Your task to perform on an android device: Open the calendar and show me this week's events Image 0: 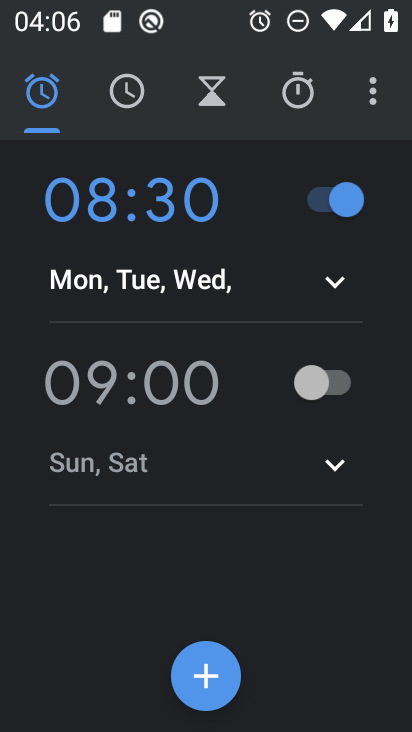
Step 0: press home button
Your task to perform on an android device: Open the calendar and show me this week's events Image 1: 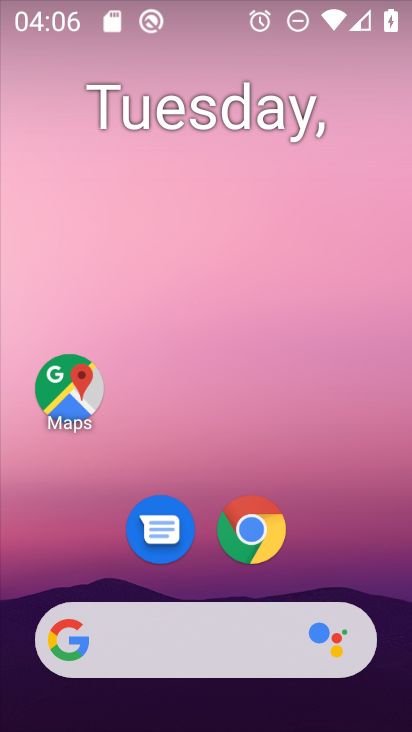
Step 1: drag from (327, 556) to (314, 118)
Your task to perform on an android device: Open the calendar and show me this week's events Image 2: 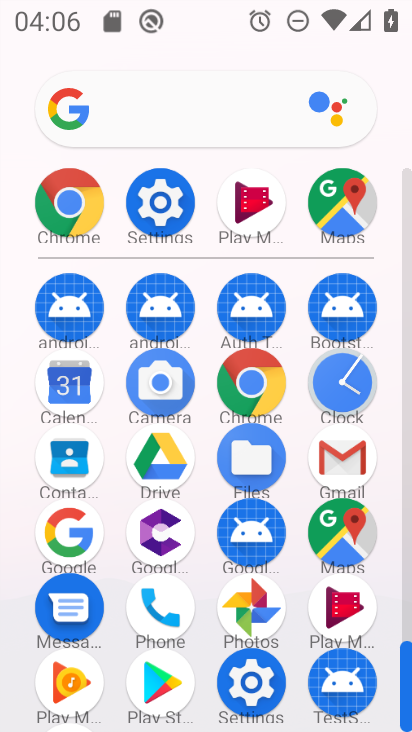
Step 2: click (72, 372)
Your task to perform on an android device: Open the calendar and show me this week's events Image 3: 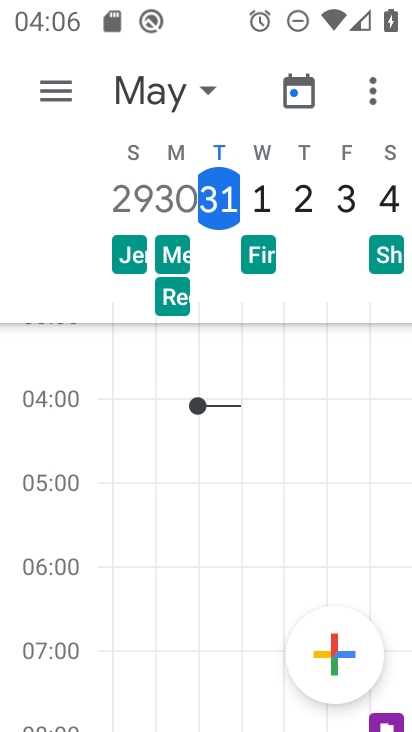
Step 3: click (55, 84)
Your task to perform on an android device: Open the calendar and show me this week's events Image 4: 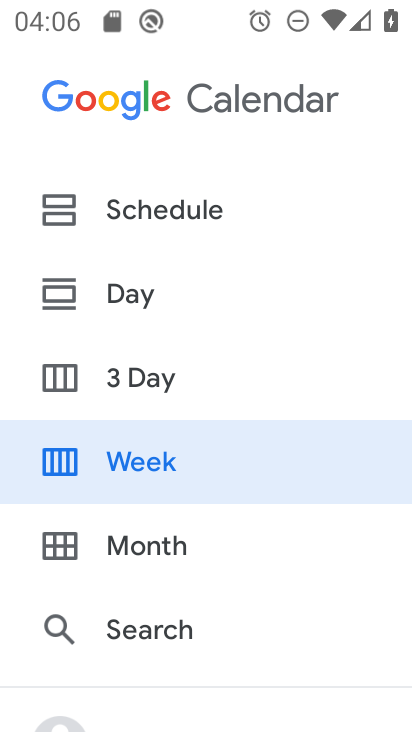
Step 4: click (173, 455)
Your task to perform on an android device: Open the calendar and show me this week's events Image 5: 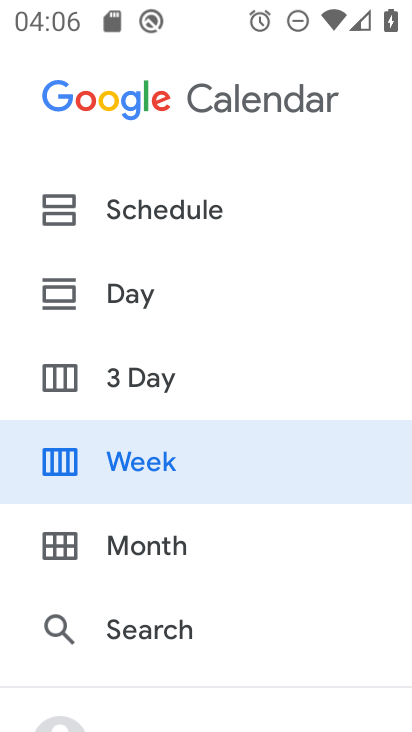
Step 5: click (193, 466)
Your task to perform on an android device: Open the calendar and show me this week's events Image 6: 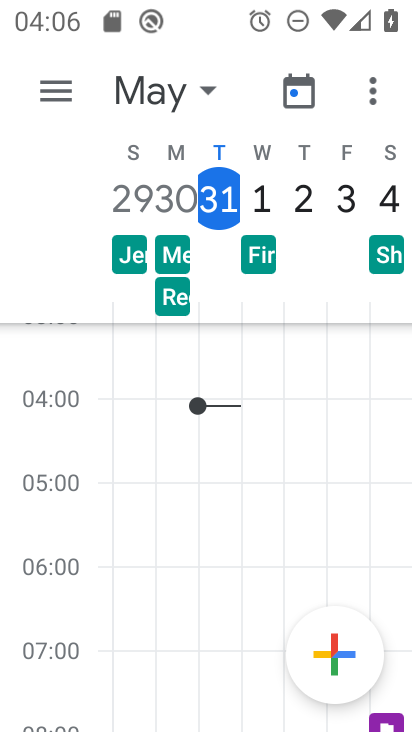
Step 6: task complete